Your task to perform on an android device: find which apps use the phone's location Image 0: 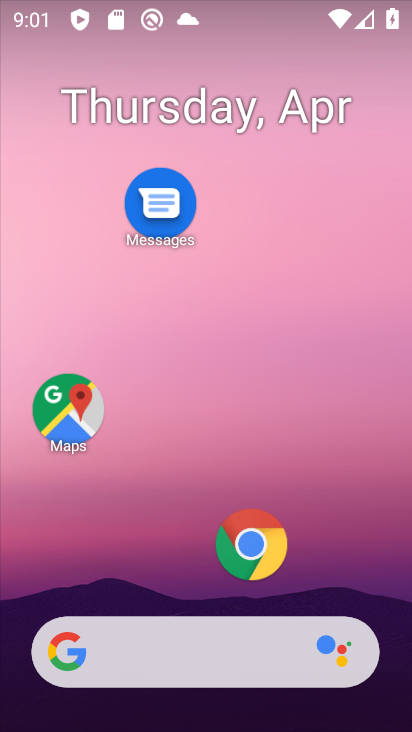
Step 0: drag from (208, 536) to (208, 205)
Your task to perform on an android device: find which apps use the phone's location Image 1: 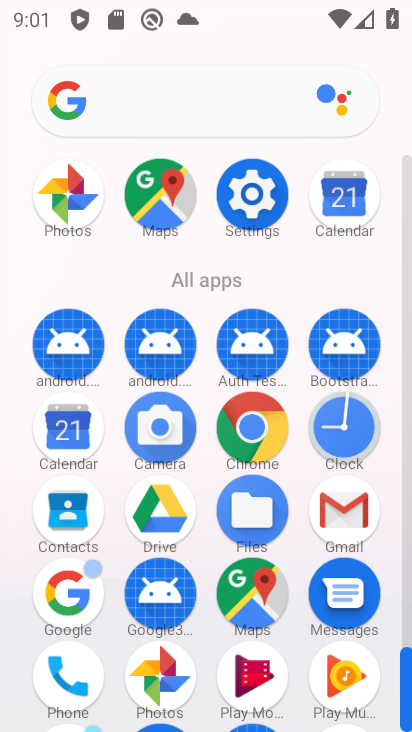
Step 1: click (263, 207)
Your task to perform on an android device: find which apps use the phone's location Image 2: 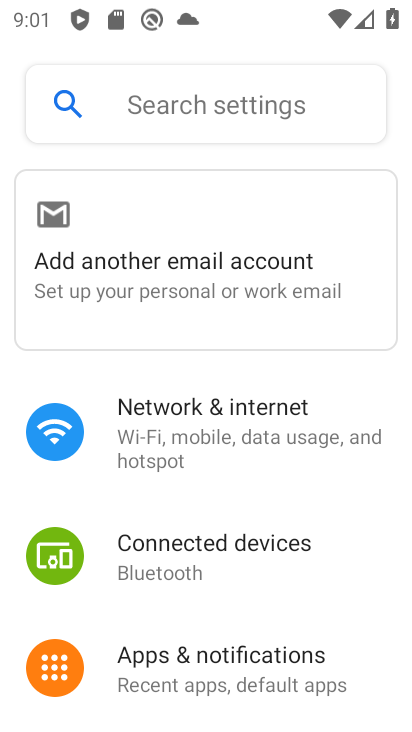
Step 2: drag from (289, 608) to (304, 301)
Your task to perform on an android device: find which apps use the phone's location Image 3: 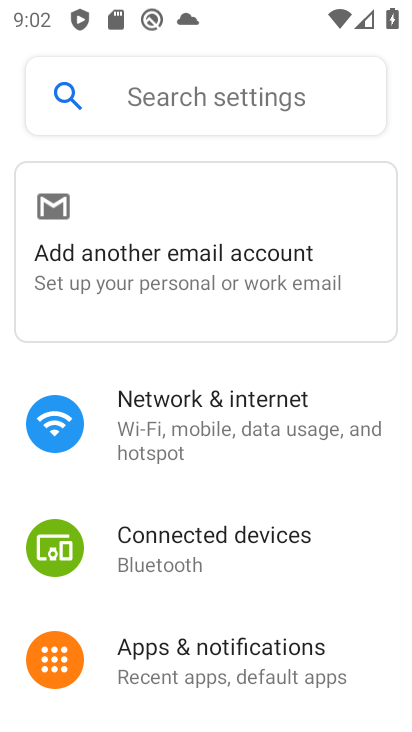
Step 3: drag from (248, 624) to (247, 364)
Your task to perform on an android device: find which apps use the phone's location Image 4: 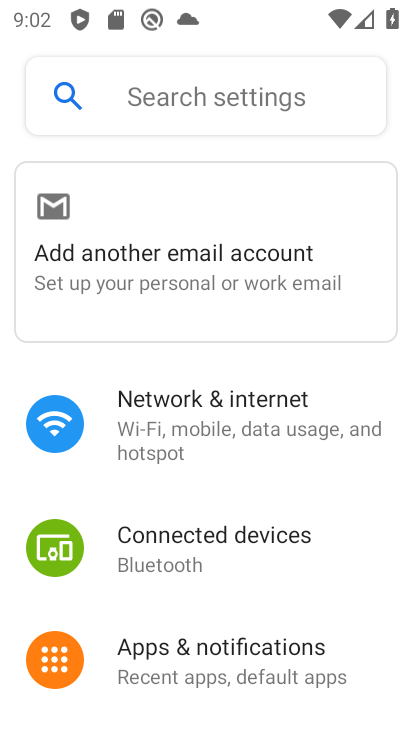
Step 4: drag from (251, 721) to (218, 308)
Your task to perform on an android device: find which apps use the phone's location Image 5: 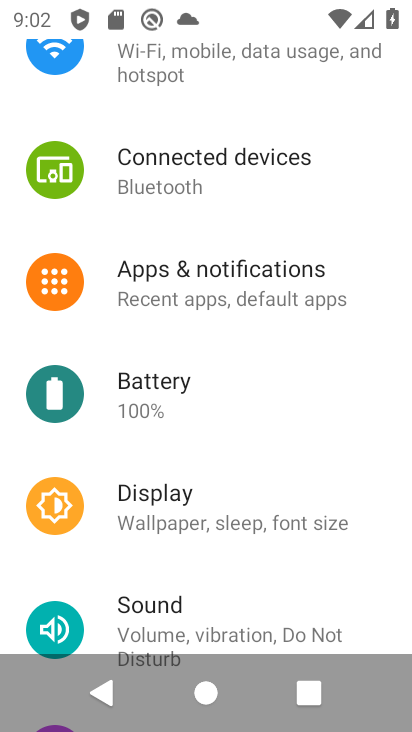
Step 5: drag from (190, 655) to (224, 259)
Your task to perform on an android device: find which apps use the phone's location Image 6: 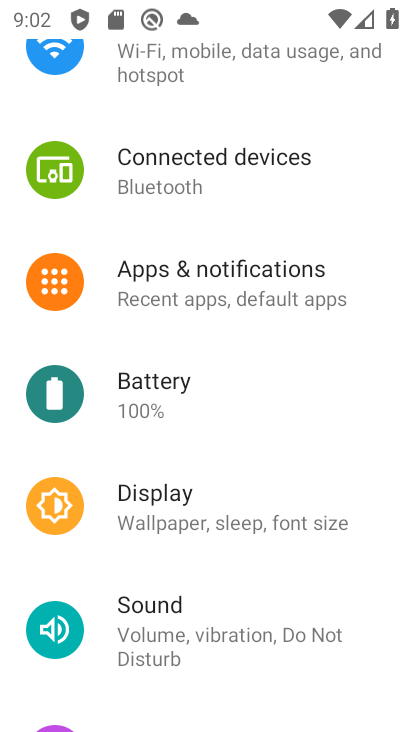
Step 6: drag from (183, 594) to (189, 358)
Your task to perform on an android device: find which apps use the phone's location Image 7: 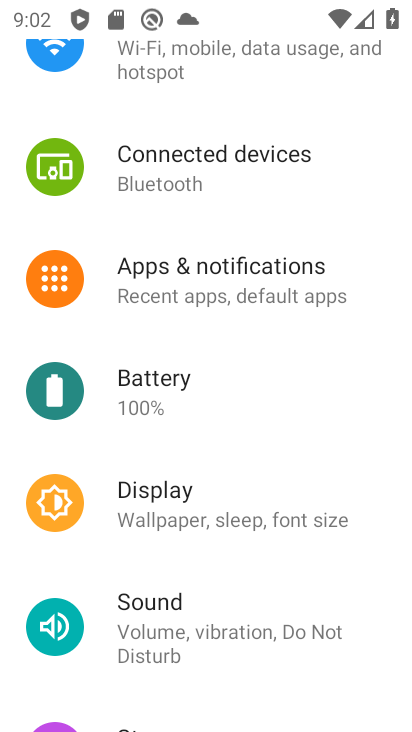
Step 7: drag from (207, 692) to (247, 330)
Your task to perform on an android device: find which apps use the phone's location Image 8: 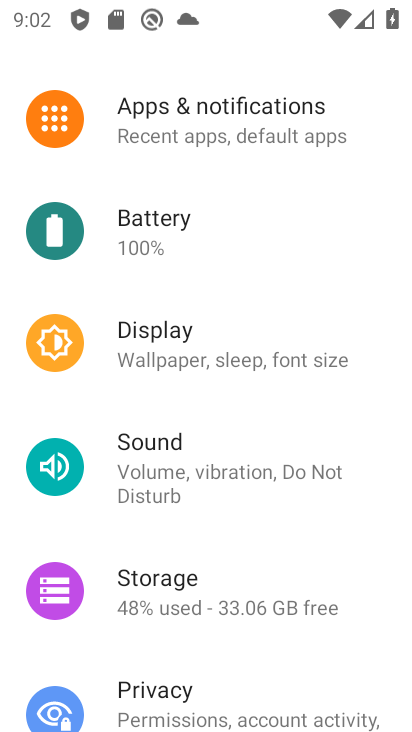
Step 8: drag from (201, 699) to (225, 367)
Your task to perform on an android device: find which apps use the phone's location Image 9: 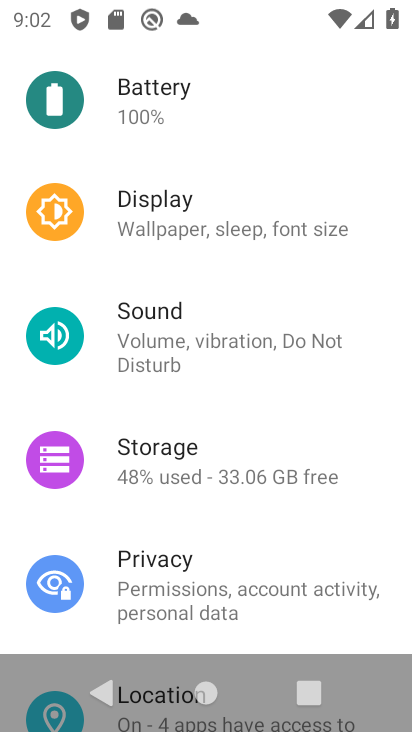
Step 9: drag from (225, 622) to (270, 299)
Your task to perform on an android device: find which apps use the phone's location Image 10: 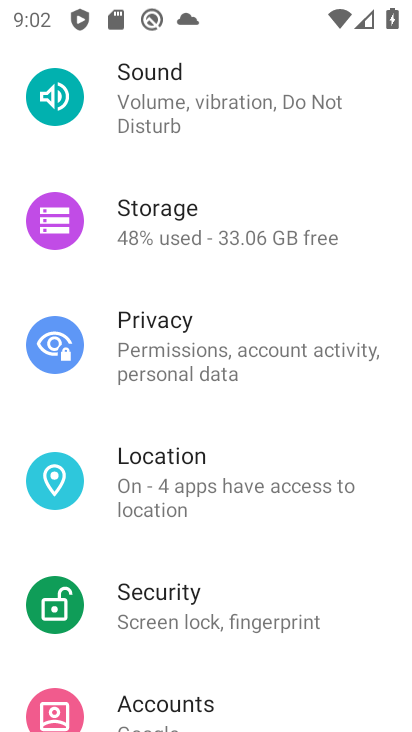
Step 10: click (208, 472)
Your task to perform on an android device: find which apps use the phone's location Image 11: 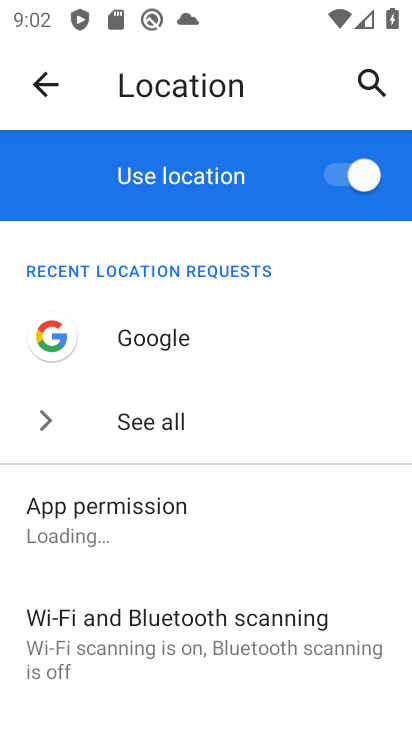
Step 11: click (85, 508)
Your task to perform on an android device: find which apps use the phone's location Image 12: 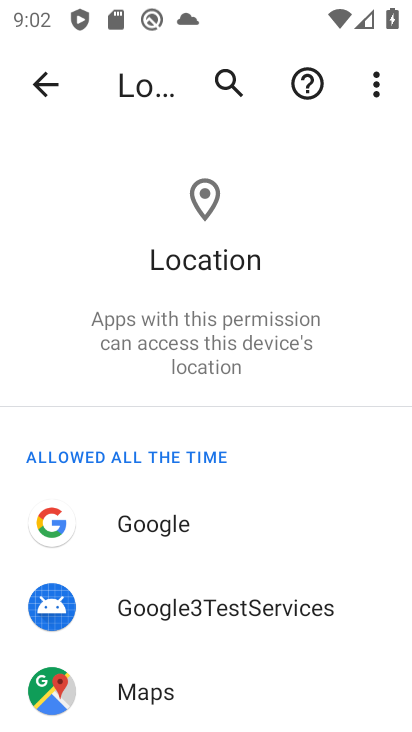
Step 12: task complete